Your task to perform on an android device: Open the Play Movies app and select the watchlist tab. Image 0: 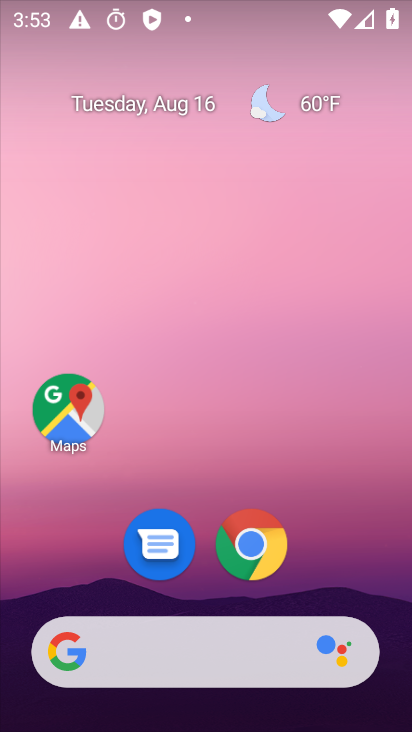
Step 0: drag from (384, 658) to (145, 48)
Your task to perform on an android device: Open the Play Movies app and select the watchlist tab. Image 1: 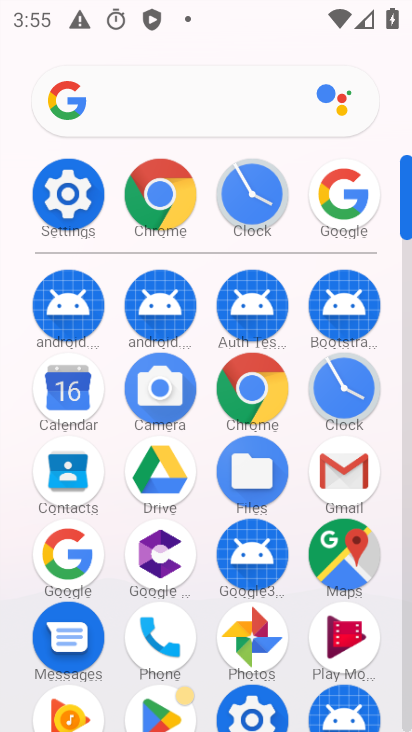
Step 1: click (333, 641)
Your task to perform on an android device: Open the Play Movies app and select the watchlist tab. Image 2: 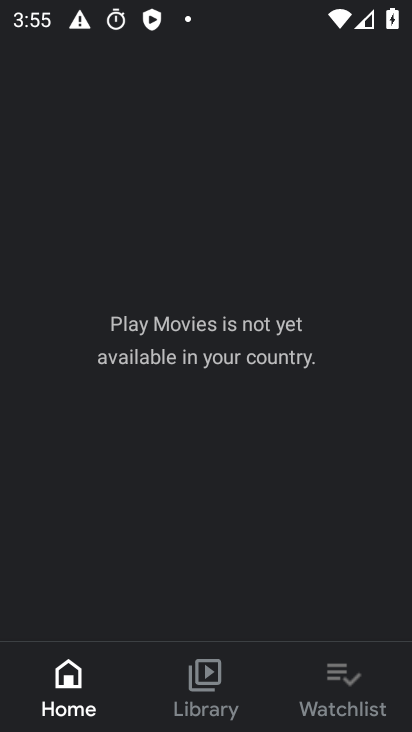
Step 2: click (357, 671)
Your task to perform on an android device: Open the Play Movies app and select the watchlist tab. Image 3: 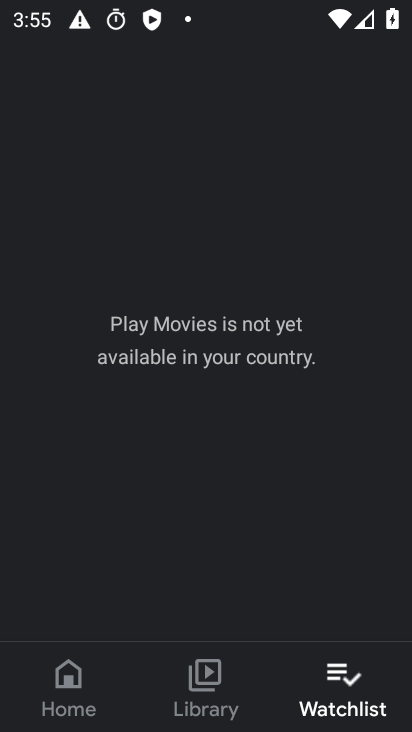
Step 3: task complete